Your task to perform on an android device: turn on improve location accuracy Image 0: 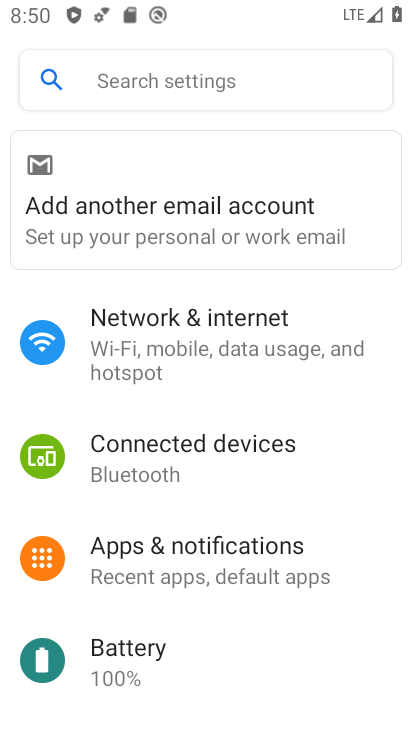
Step 0: drag from (241, 648) to (308, 223)
Your task to perform on an android device: turn on improve location accuracy Image 1: 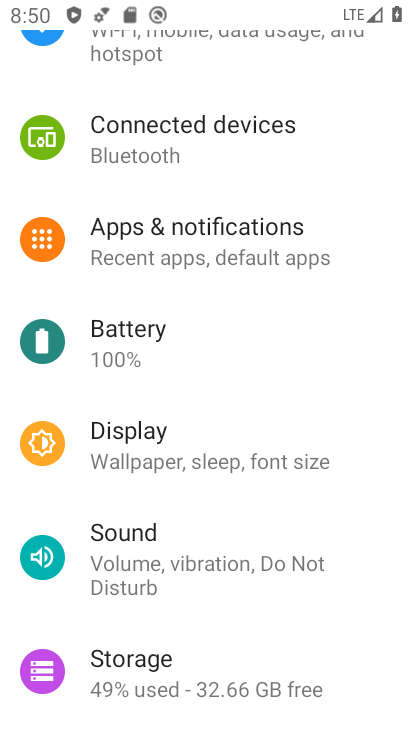
Step 1: drag from (264, 582) to (267, 237)
Your task to perform on an android device: turn on improve location accuracy Image 2: 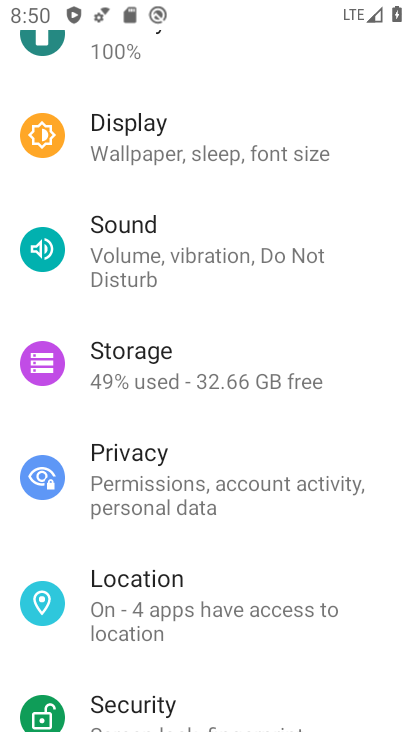
Step 2: click (210, 593)
Your task to perform on an android device: turn on improve location accuracy Image 3: 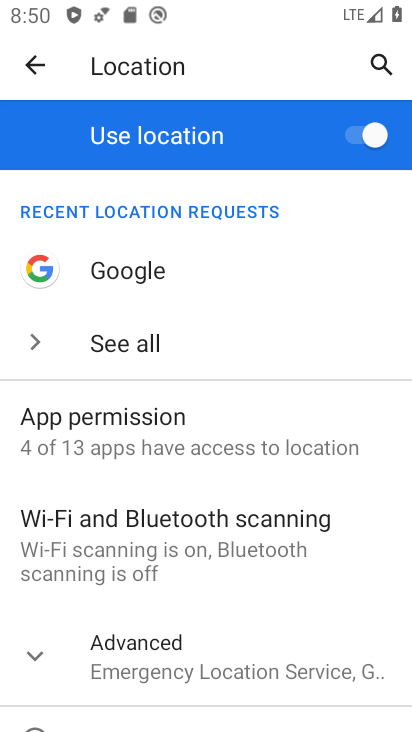
Step 3: drag from (258, 601) to (320, 329)
Your task to perform on an android device: turn on improve location accuracy Image 4: 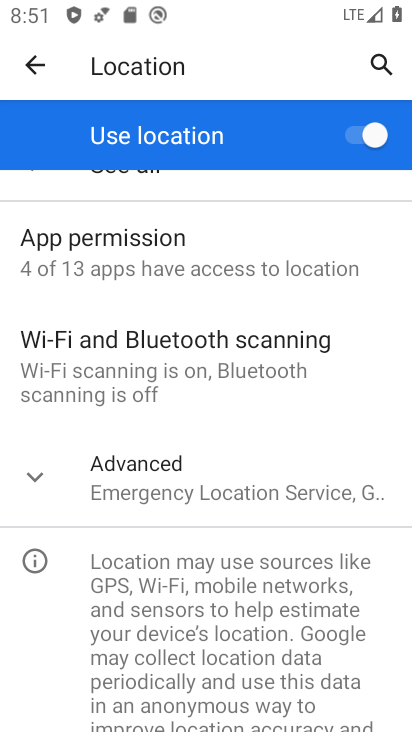
Step 4: click (168, 469)
Your task to perform on an android device: turn on improve location accuracy Image 5: 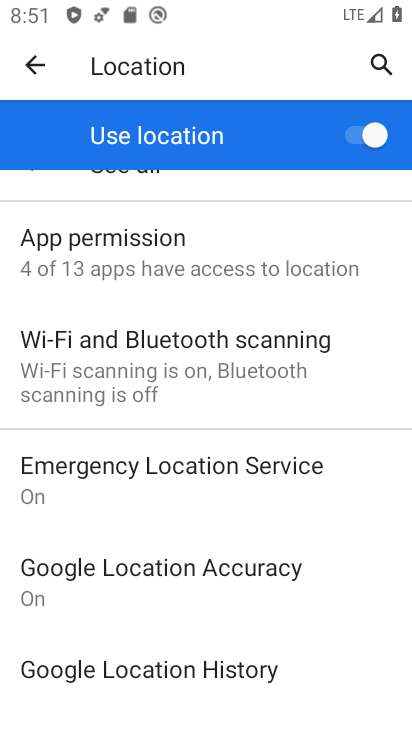
Step 5: click (204, 564)
Your task to perform on an android device: turn on improve location accuracy Image 6: 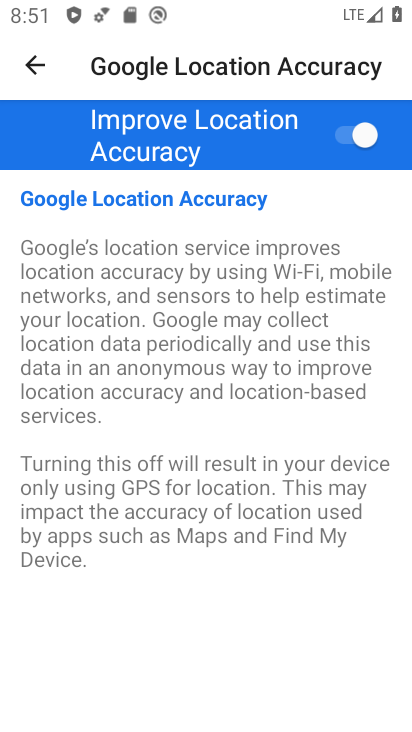
Step 6: task complete